Your task to perform on an android device: change notifications settings Image 0: 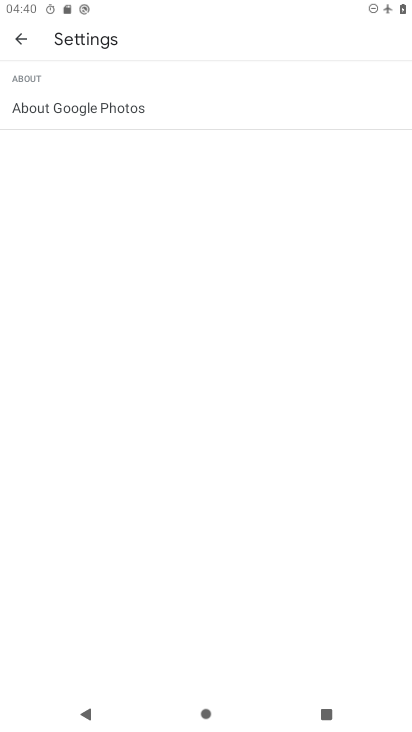
Step 0: drag from (348, 659) to (230, 189)
Your task to perform on an android device: change notifications settings Image 1: 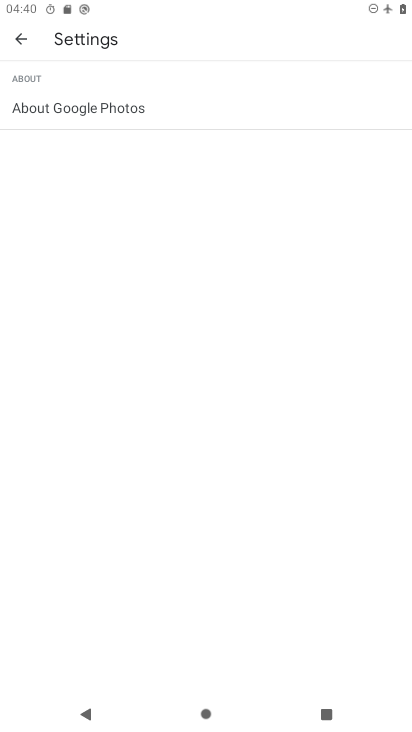
Step 1: press home button
Your task to perform on an android device: change notifications settings Image 2: 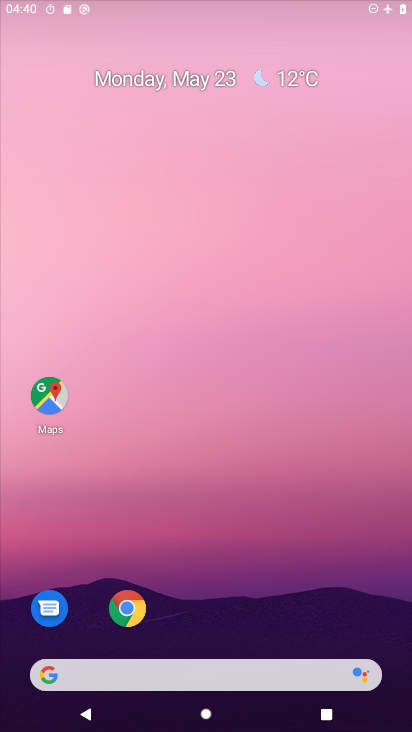
Step 2: drag from (282, 463) to (147, 21)
Your task to perform on an android device: change notifications settings Image 3: 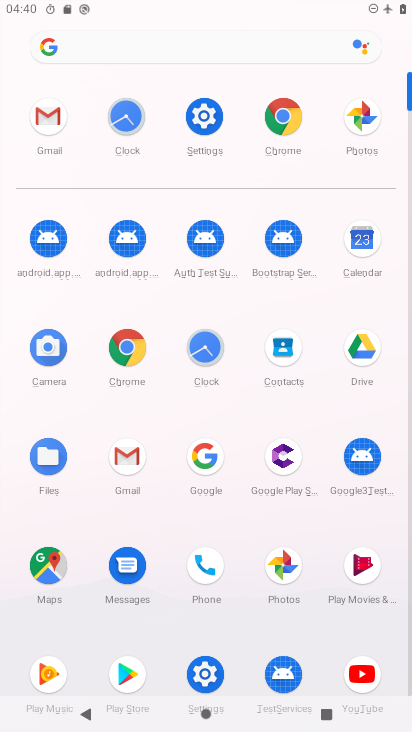
Step 3: click (201, 121)
Your task to perform on an android device: change notifications settings Image 4: 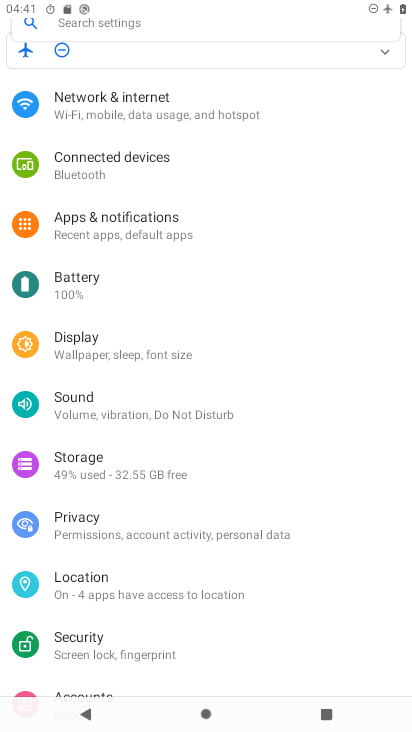
Step 4: click (96, 228)
Your task to perform on an android device: change notifications settings Image 5: 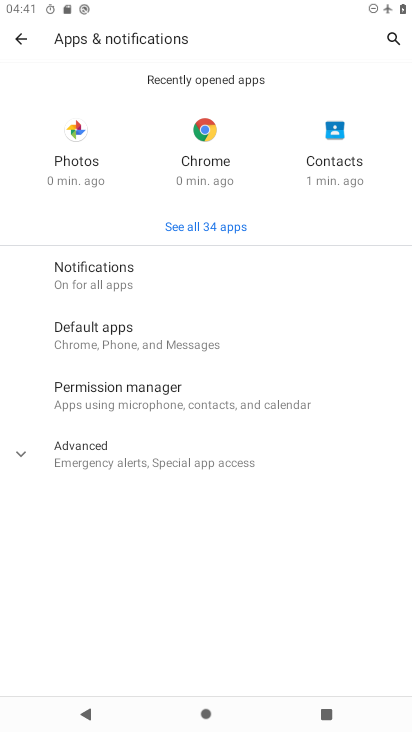
Step 5: click (223, 275)
Your task to perform on an android device: change notifications settings Image 6: 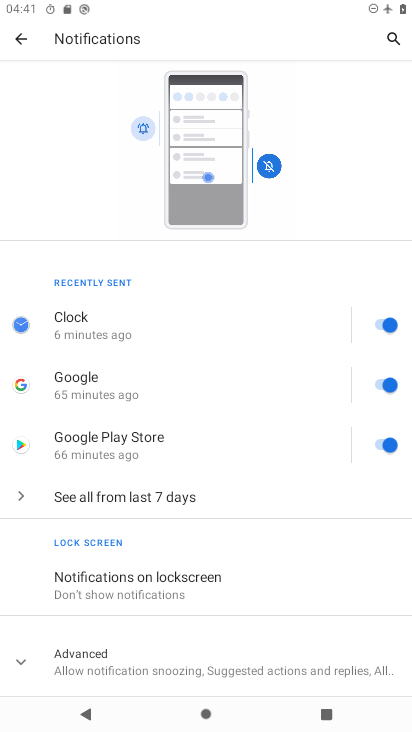
Step 6: click (379, 376)
Your task to perform on an android device: change notifications settings Image 7: 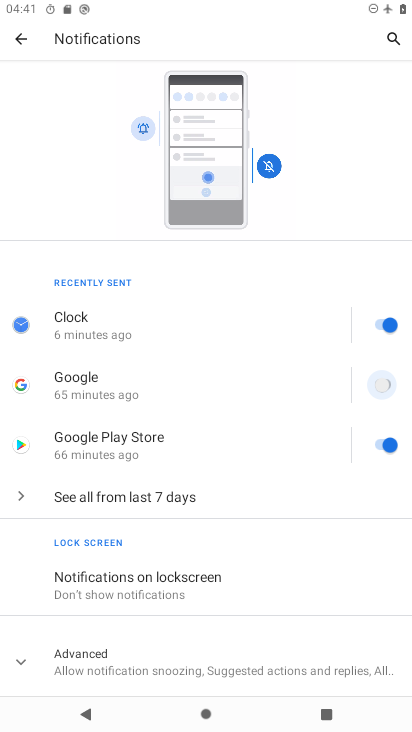
Step 7: task complete